Your task to perform on an android device: Open Chrome and go to settings Image 0: 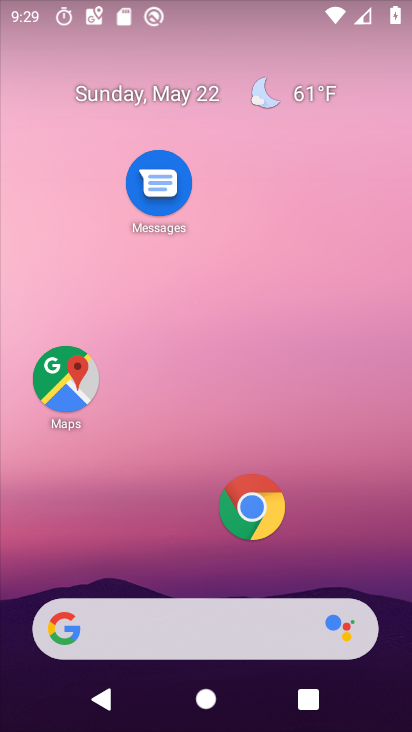
Step 0: click (244, 497)
Your task to perform on an android device: Open Chrome and go to settings Image 1: 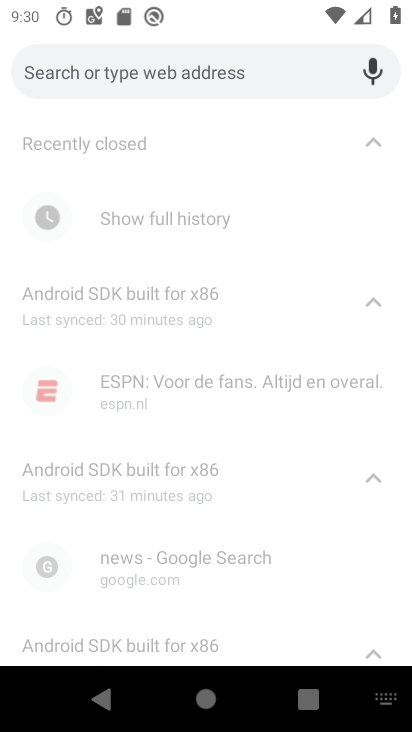
Step 1: press back button
Your task to perform on an android device: Open Chrome and go to settings Image 2: 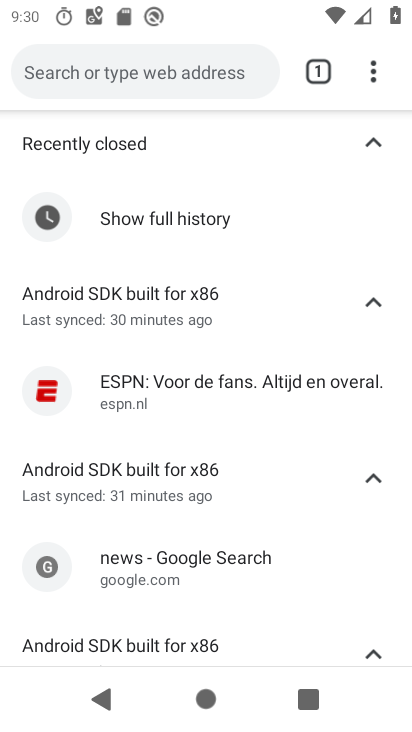
Step 2: click (377, 69)
Your task to perform on an android device: Open Chrome and go to settings Image 3: 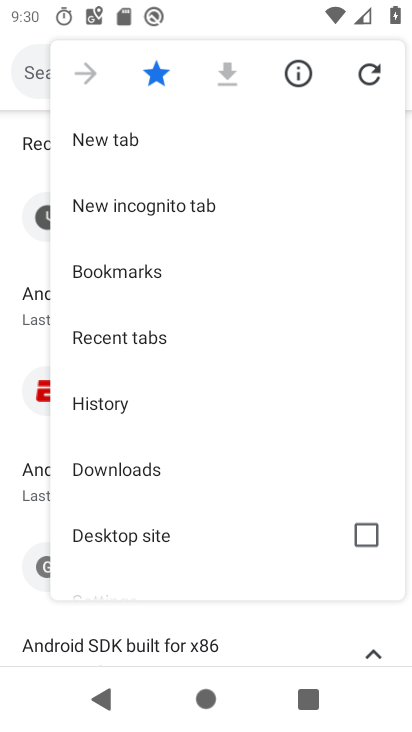
Step 3: drag from (114, 526) to (105, 165)
Your task to perform on an android device: Open Chrome and go to settings Image 4: 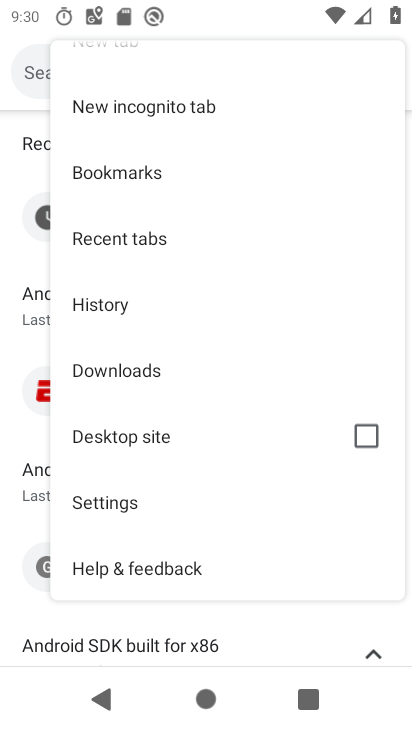
Step 4: click (116, 512)
Your task to perform on an android device: Open Chrome and go to settings Image 5: 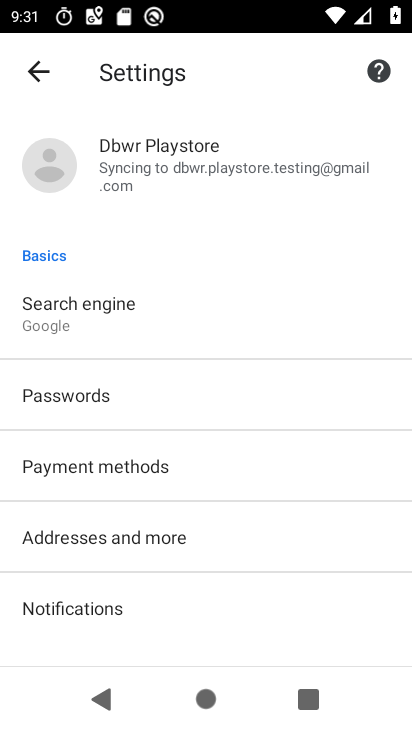
Step 5: task complete